Your task to perform on an android device: Search for Italian restaurants on Maps Image 0: 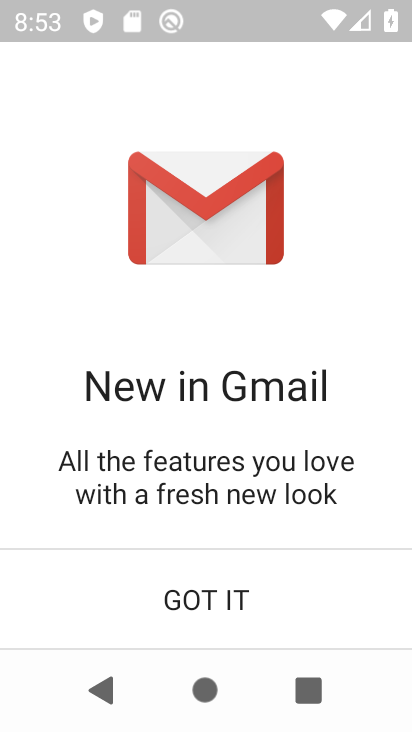
Step 0: press home button
Your task to perform on an android device: Search for Italian restaurants on Maps Image 1: 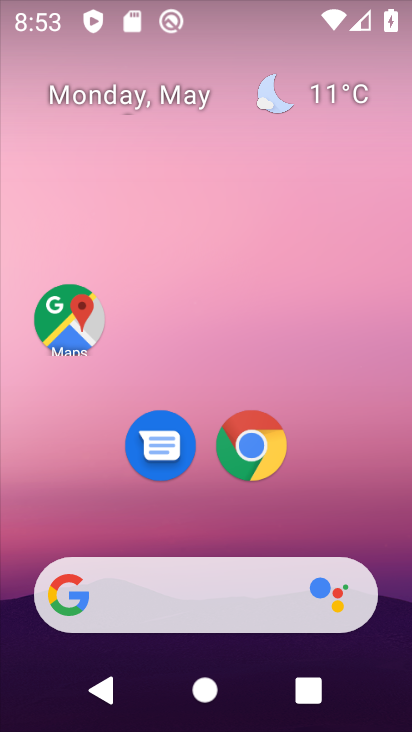
Step 1: drag from (303, 634) to (385, 185)
Your task to perform on an android device: Search for Italian restaurants on Maps Image 2: 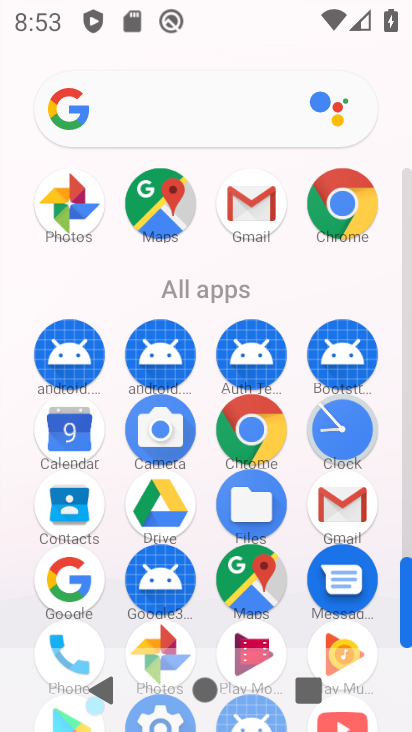
Step 2: click (167, 194)
Your task to perform on an android device: Search for Italian restaurants on Maps Image 3: 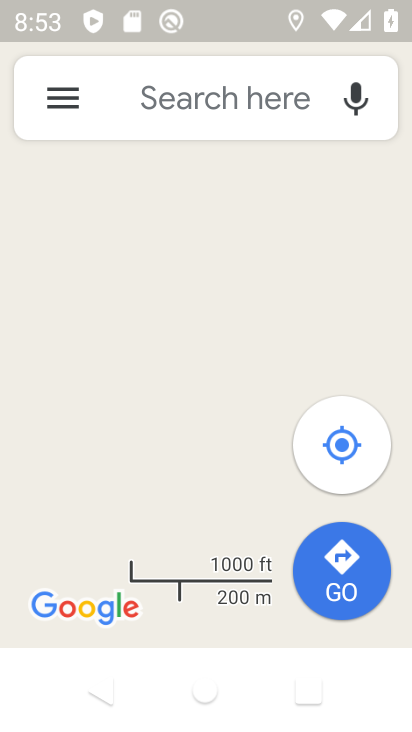
Step 3: click (190, 97)
Your task to perform on an android device: Search for Italian restaurants on Maps Image 4: 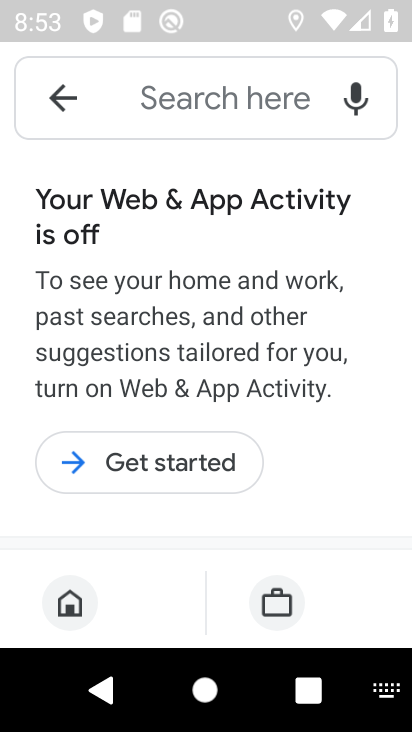
Step 4: click (164, 472)
Your task to perform on an android device: Search for Italian restaurants on Maps Image 5: 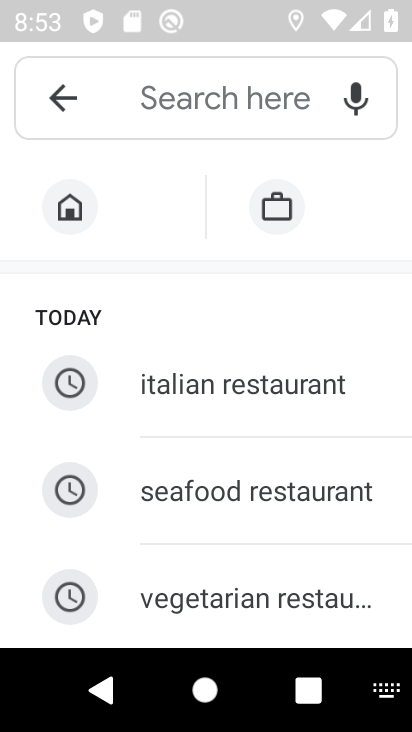
Step 5: click (227, 399)
Your task to perform on an android device: Search for Italian restaurants on Maps Image 6: 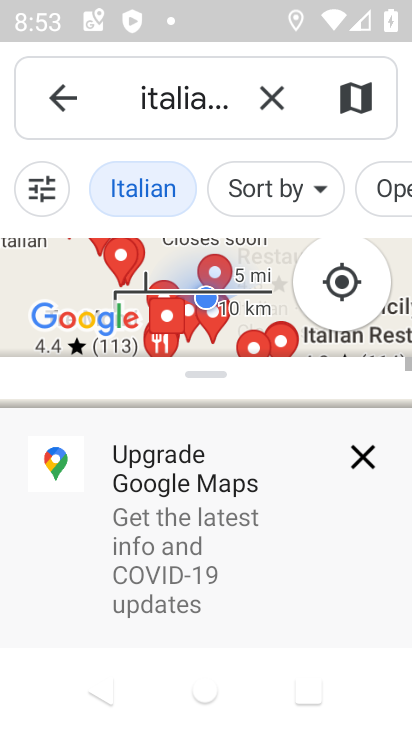
Step 6: task complete